Your task to perform on an android device: Go to Android settings Image 0: 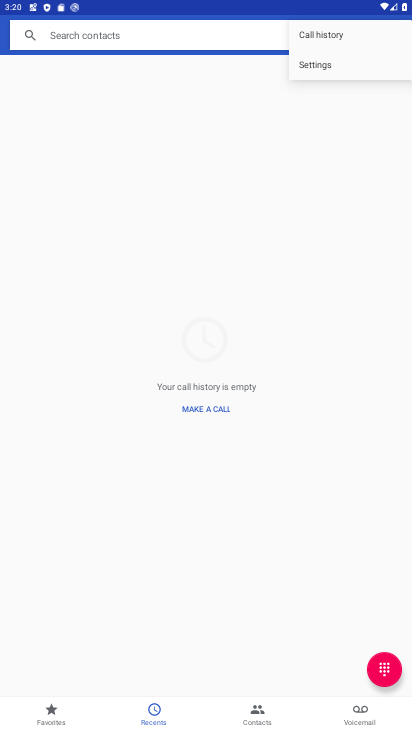
Step 0: press home button
Your task to perform on an android device: Go to Android settings Image 1: 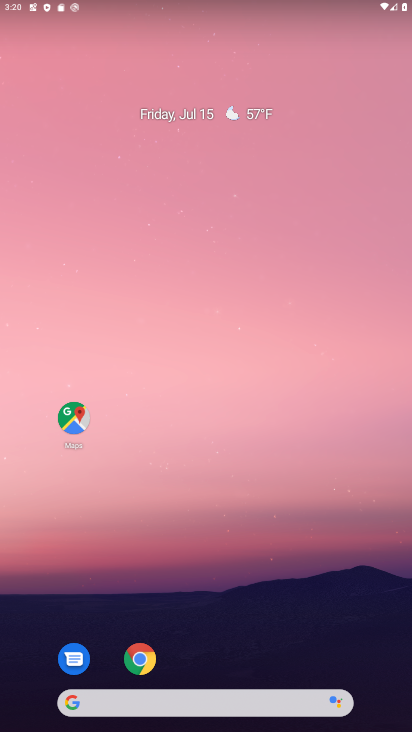
Step 1: drag from (15, 675) to (181, 32)
Your task to perform on an android device: Go to Android settings Image 2: 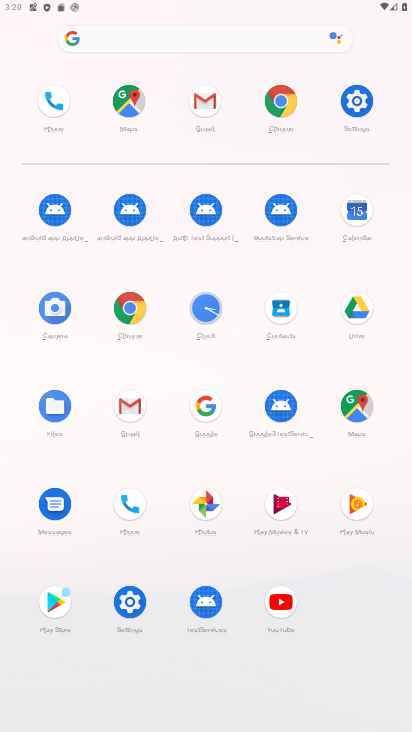
Step 2: click (130, 587)
Your task to perform on an android device: Go to Android settings Image 3: 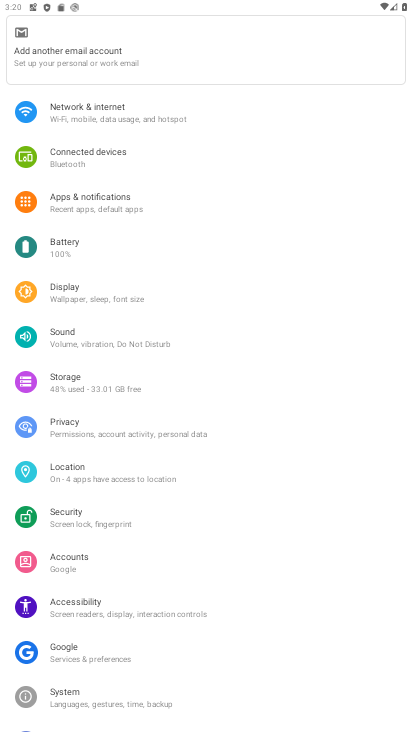
Step 3: drag from (377, 678) to (238, 54)
Your task to perform on an android device: Go to Android settings Image 4: 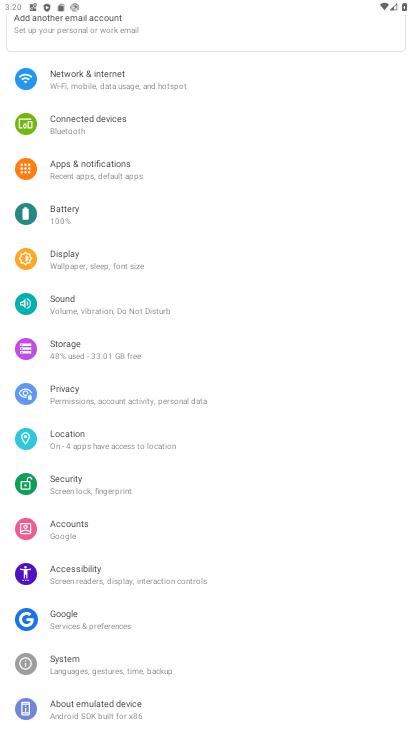
Step 4: click (112, 710)
Your task to perform on an android device: Go to Android settings Image 5: 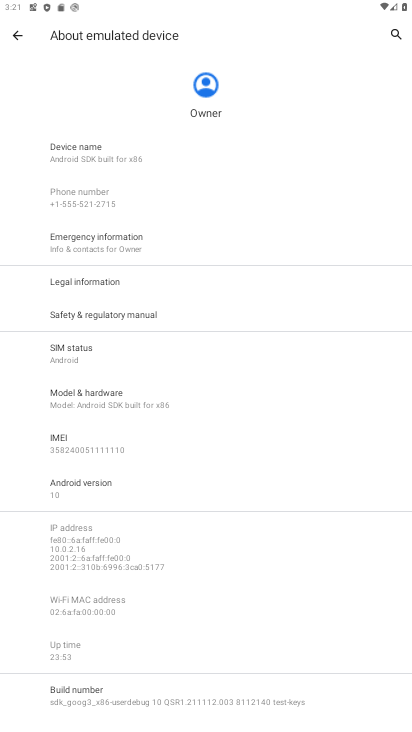
Step 5: click (100, 486)
Your task to perform on an android device: Go to Android settings Image 6: 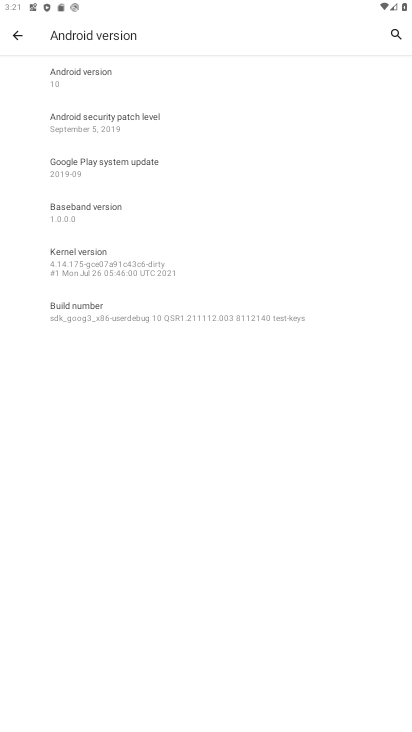
Step 6: click (87, 71)
Your task to perform on an android device: Go to Android settings Image 7: 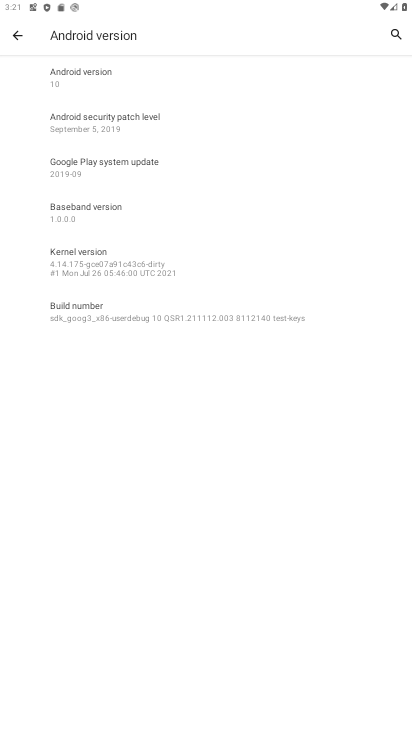
Step 7: task complete